Your task to perform on an android device: Open Google Chrome and open the bookmarks view Image 0: 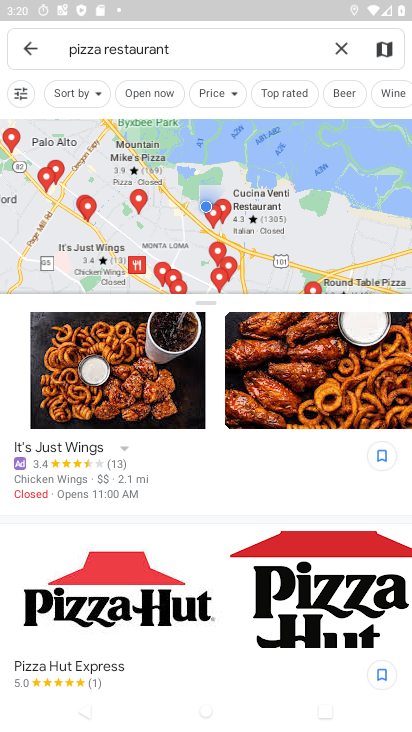
Step 0: press home button
Your task to perform on an android device: Open Google Chrome and open the bookmarks view Image 1: 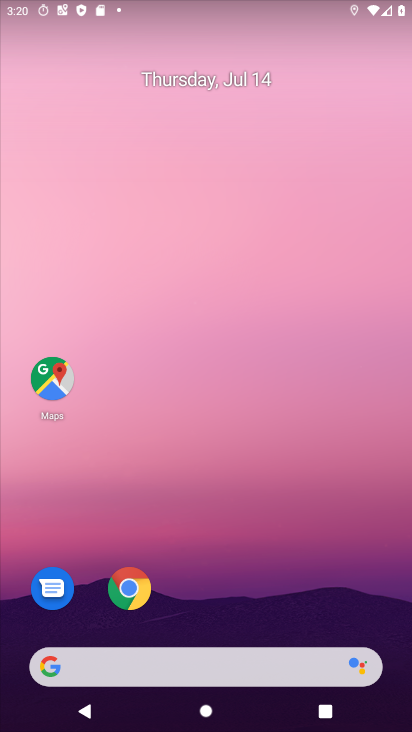
Step 1: click (128, 588)
Your task to perform on an android device: Open Google Chrome and open the bookmarks view Image 2: 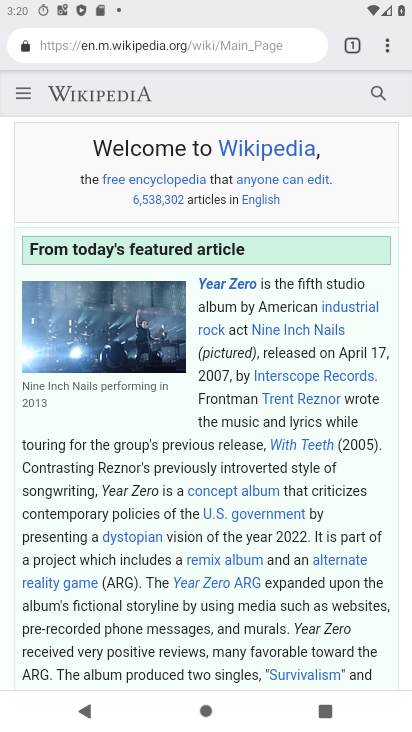
Step 2: click (387, 45)
Your task to perform on an android device: Open Google Chrome and open the bookmarks view Image 3: 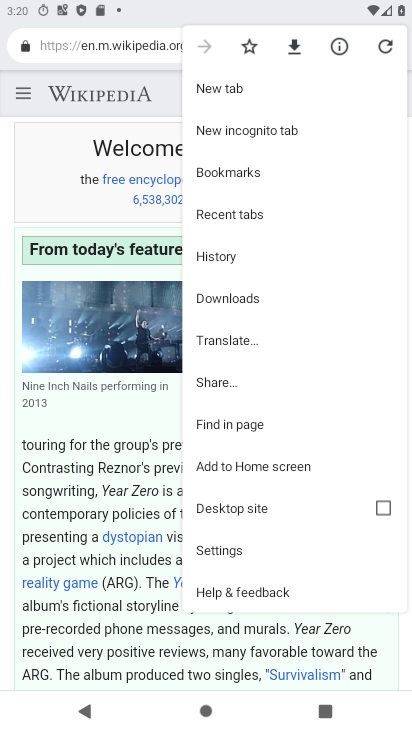
Step 3: click (253, 171)
Your task to perform on an android device: Open Google Chrome and open the bookmarks view Image 4: 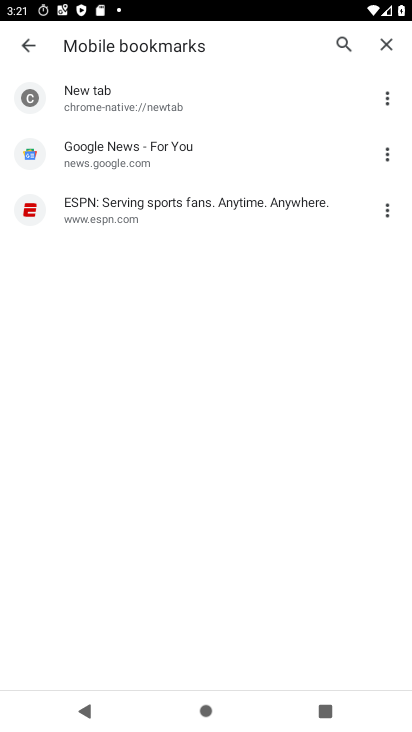
Step 4: task complete